Your task to perform on an android device: see tabs open on other devices in the chrome app Image 0: 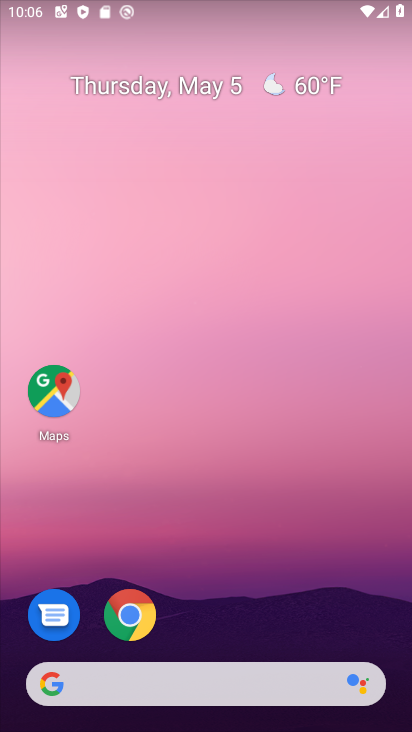
Step 0: click (131, 619)
Your task to perform on an android device: see tabs open on other devices in the chrome app Image 1: 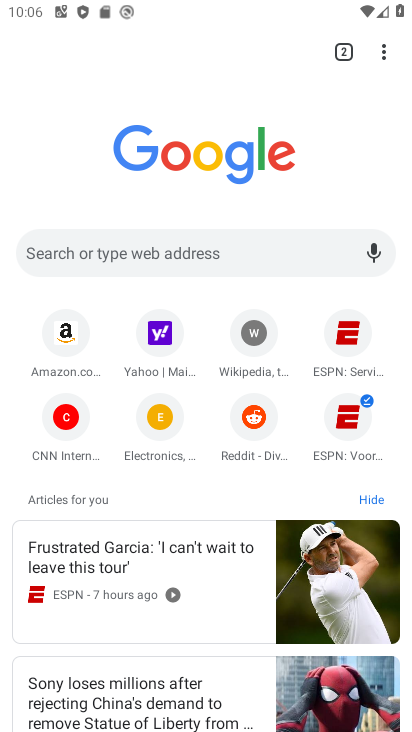
Step 1: click (342, 53)
Your task to perform on an android device: see tabs open on other devices in the chrome app Image 2: 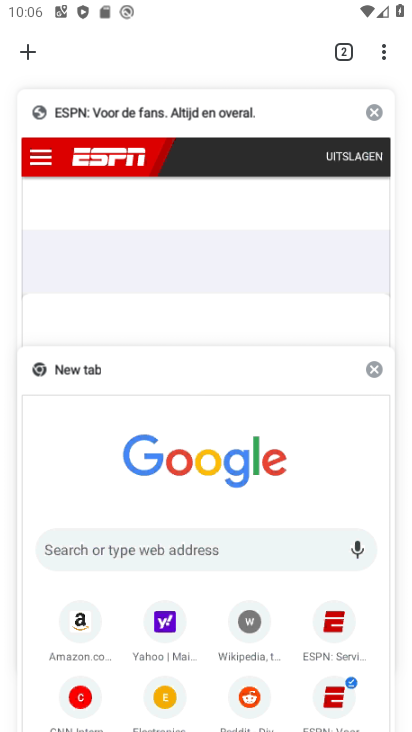
Step 2: task complete